Your task to perform on an android device: Show me recent news Image 0: 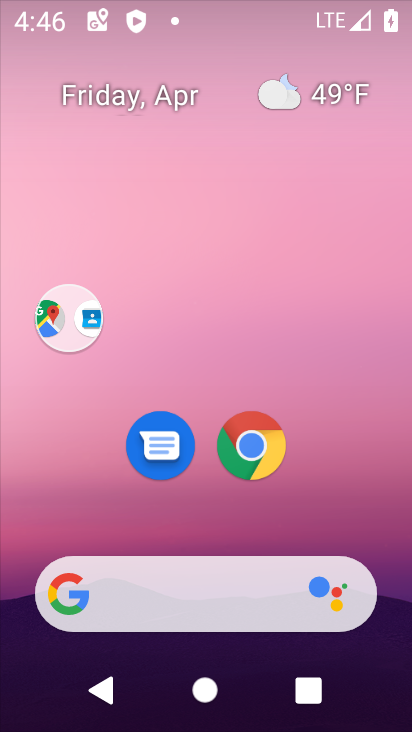
Step 0: drag from (353, 498) to (377, 6)
Your task to perform on an android device: Show me recent news Image 1: 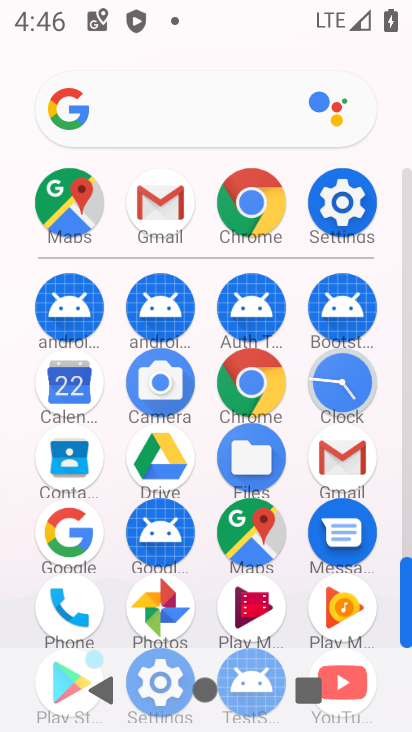
Step 1: click (245, 382)
Your task to perform on an android device: Show me recent news Image 2: 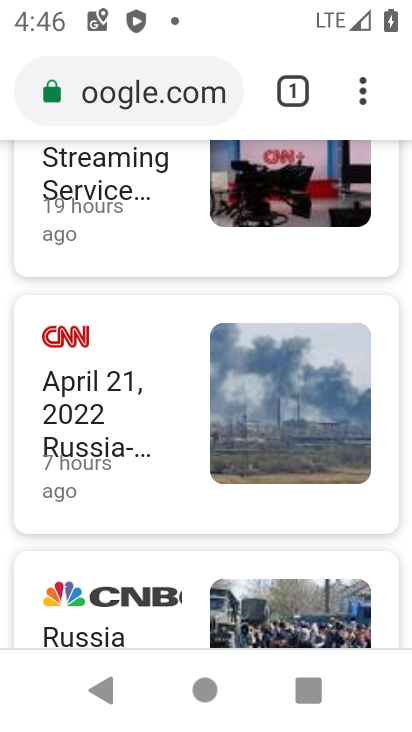
Step 2: task complete